Your task to perform on an android device: toggle airplane mode Image 0: 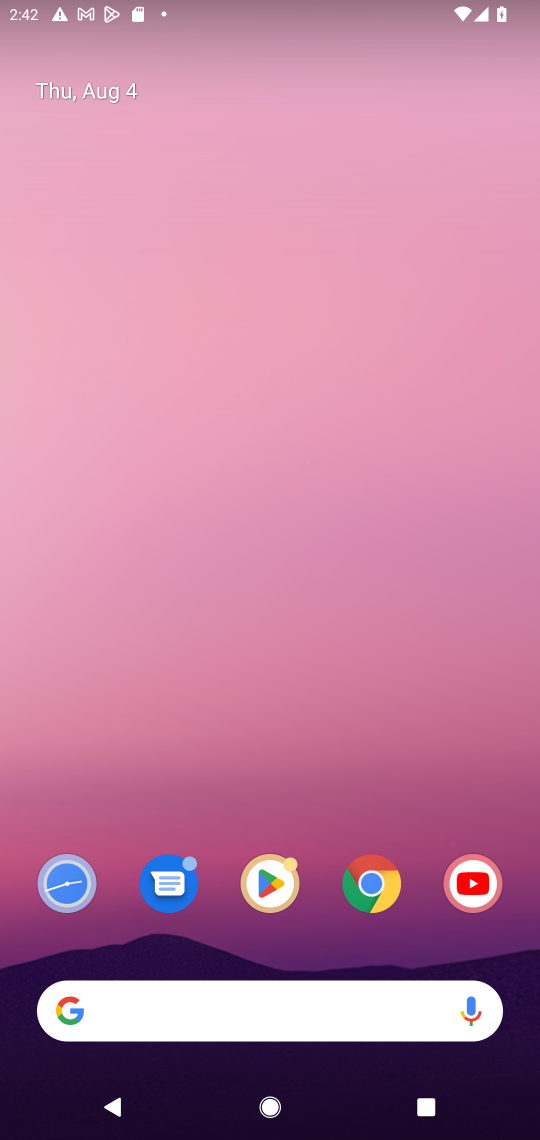
Step 0: drag from (222, 849) to (183, 282)
Your task to perform on an android device: toggle airplane mode Image 1: 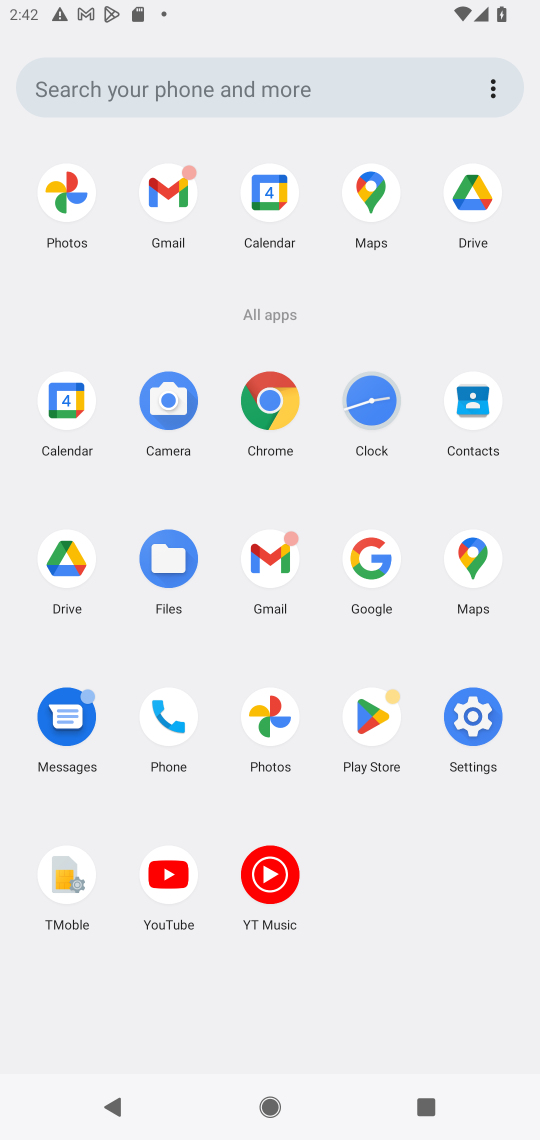
Step 1: click (479, 713)
Your task to perform on an android device: toggle airplane mode Image 2: 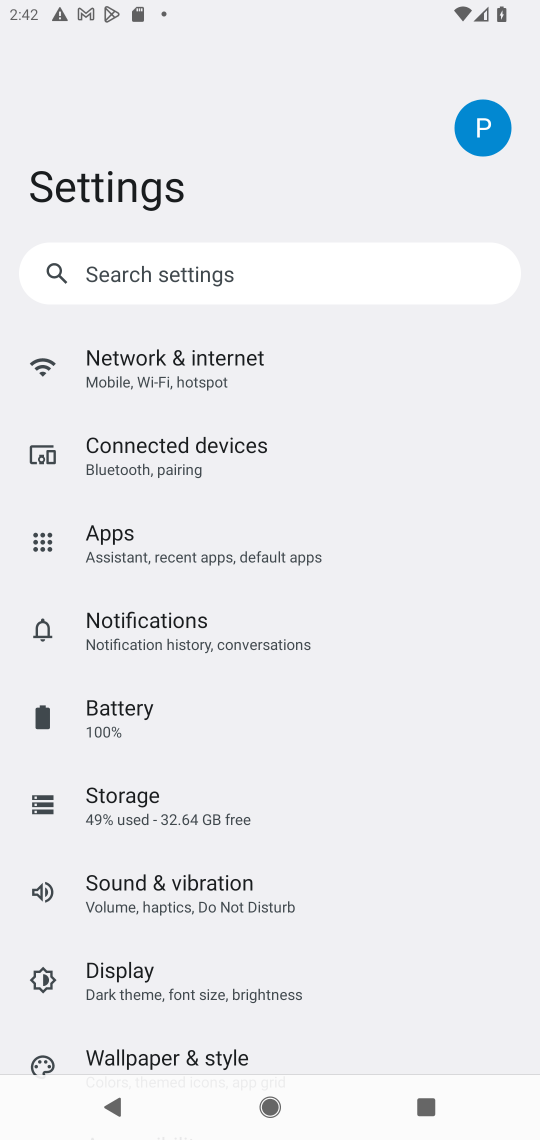
Step 2: click (149, 364)
Your task to perform on an android device: toggle airplane mode Image 3: 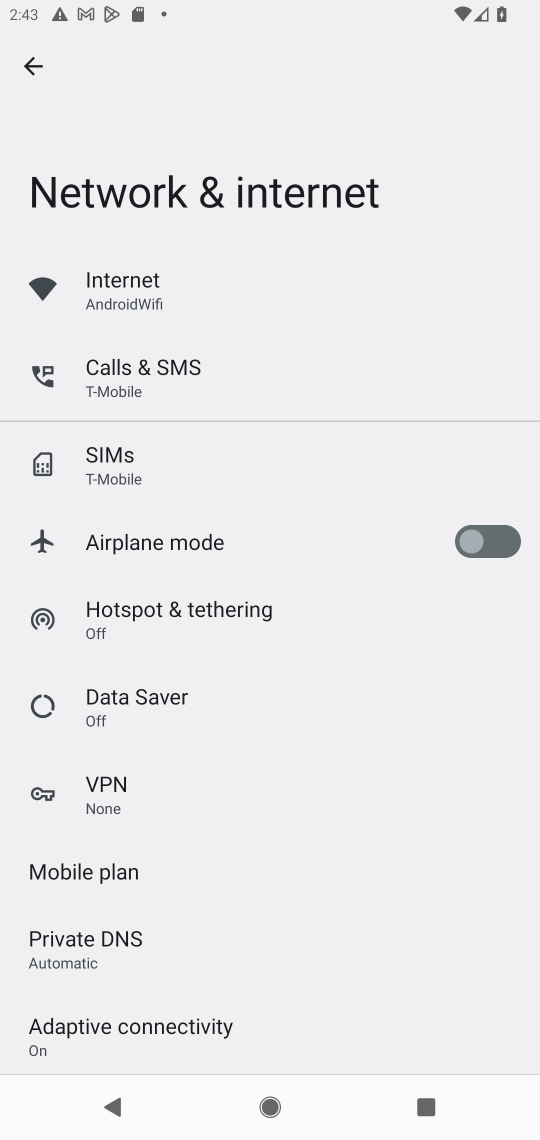
Step 3: click (500, 543)
Your task to perform on an android device: toggle airplane mode Image 4: 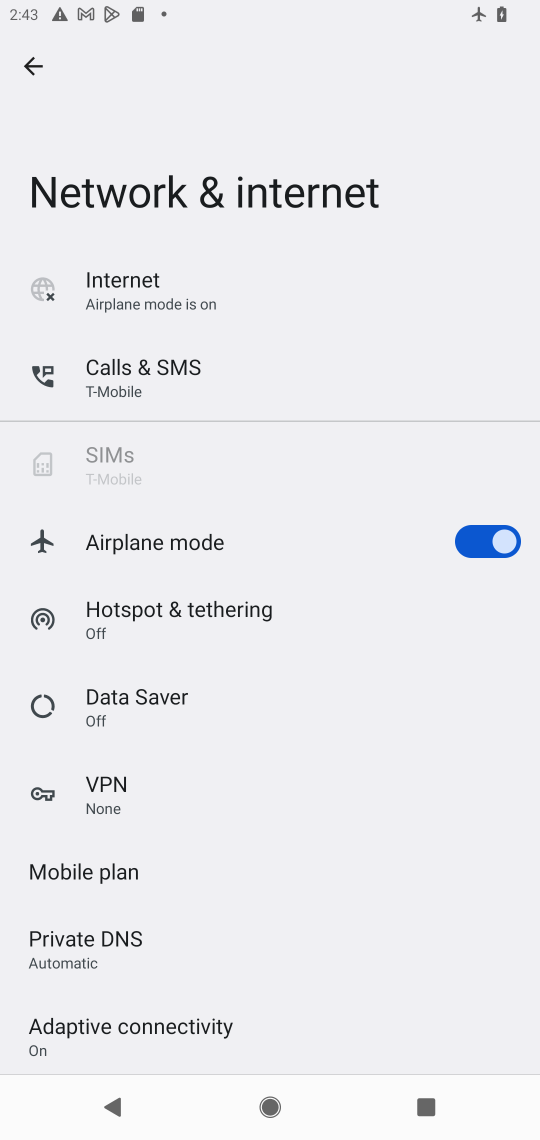
Step 4: task complete